Your task to perform on an android device: Go to privacy settings Image 0: 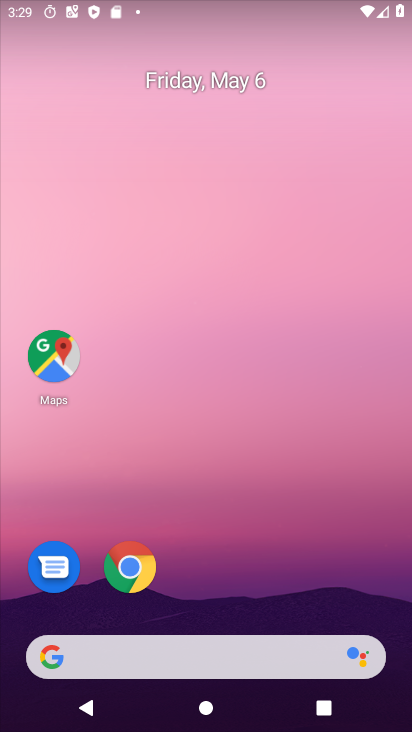
Step 0: drag from (169, 603) to (277, 171)
Your task to perform on an android device: Go to privacy settings Image 1: 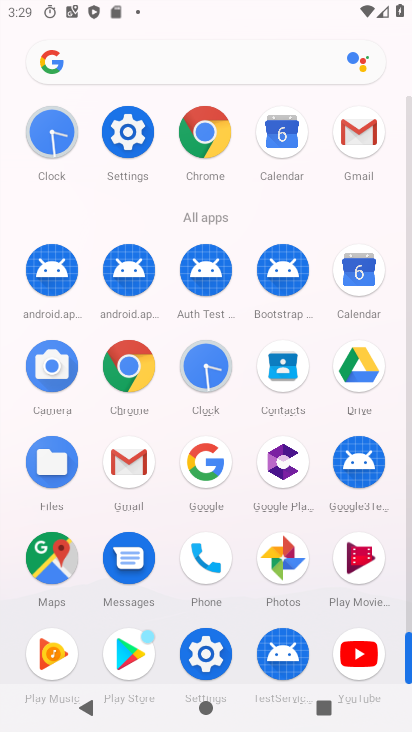
Step 1: click (204, 640)
Your task to perform on an android device: Go to privacy settings Image 2: 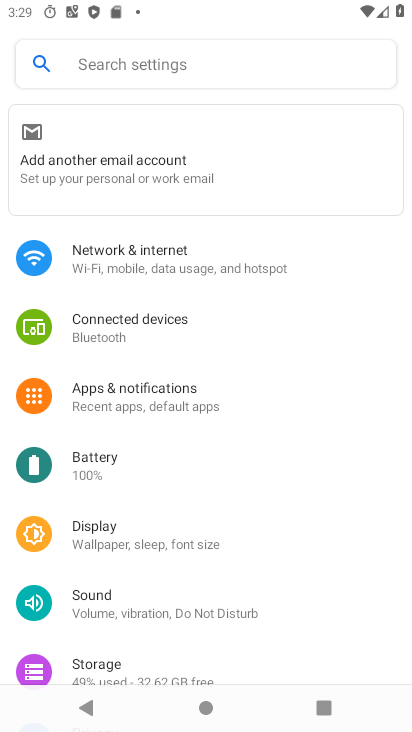
Step 2: drag from (174, 593) to (265, 264)
Your task to perform on an android device: Go to privacy settings Image 3: 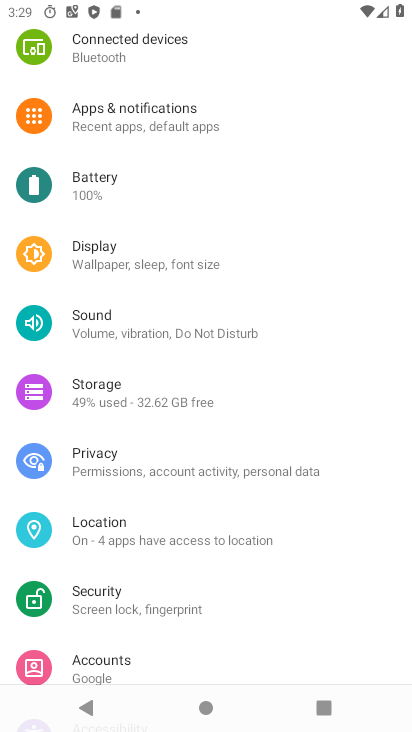
Step 3: click (130, 464)
Your task to perform on an android device: Go to privacy settings Image 4: 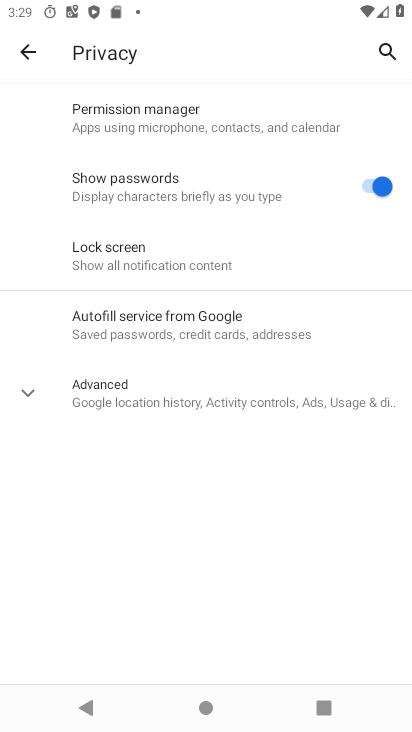
Step 4: task complete